Your task to perform on an android device: Open Youtube and go to "Your channel" Image 0: 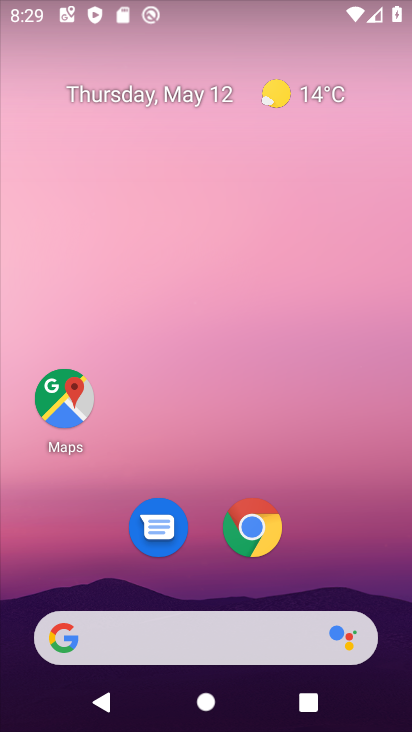
Step 0: drag from (330, 552) to (277, 29)
Your task to perform on an android device: Open Youtube and go to "Your channel" Image 1: 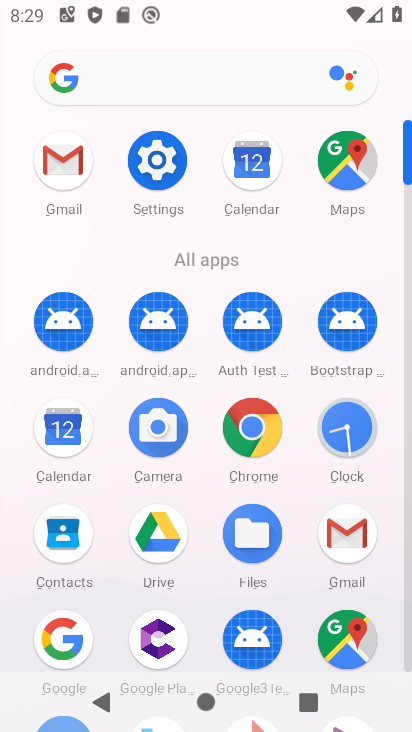
Step 1: click (402, 642)
Your task to perform on an android device: Open Youtube and go to "Your channel" Image 2: 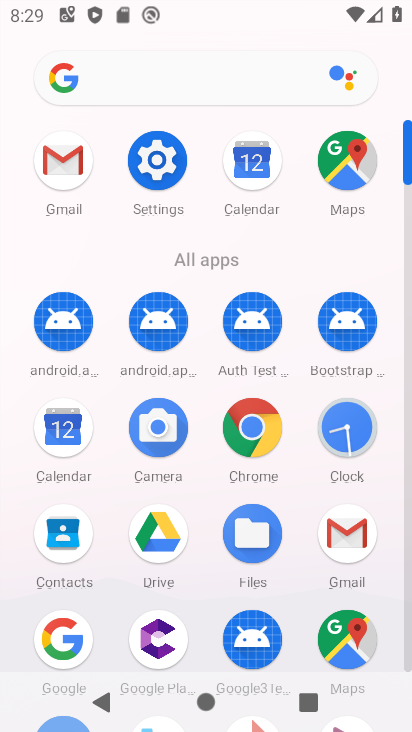
Step 2: click (410, 642)
Your task to perform on an android device: Open Youtube and go to "Your channel" Image 3: 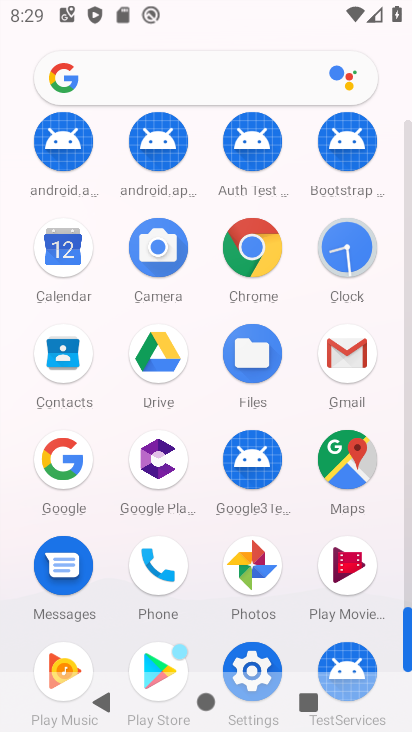
Step 3: drag from (410, 642) to (382, 707)
Your task to perform on an android device: Open Youtube and go to "Your channel" Image 4: 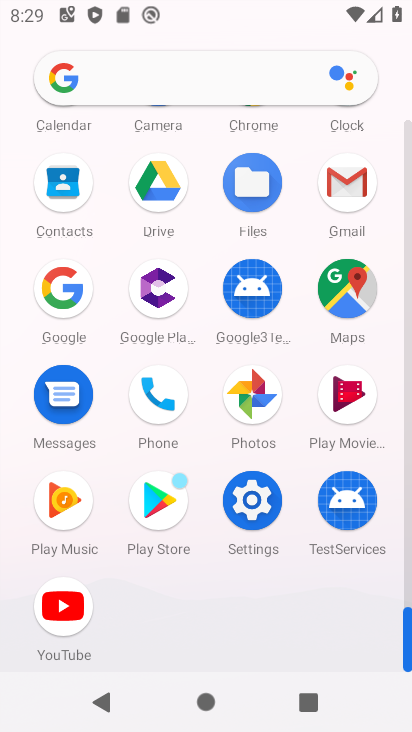
Step 4: click (69, 631)
Your task to perform on an android device: Open Youtube and go to "Your channel" Image 5: 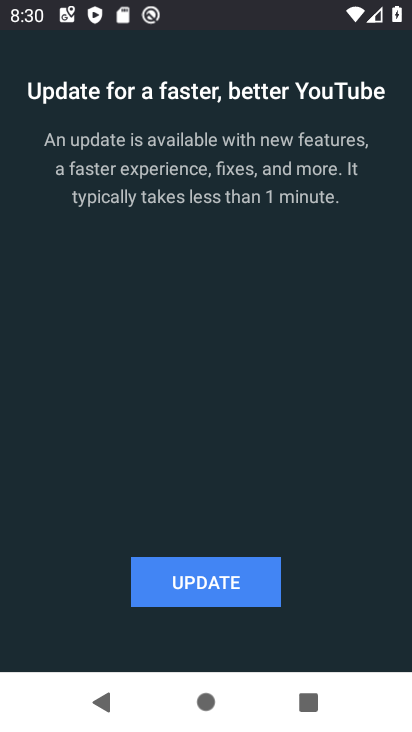
Step 5: click (193, 599)
Your task to perform on an android device: Open Youtube and go to "Your channel" Image 6: 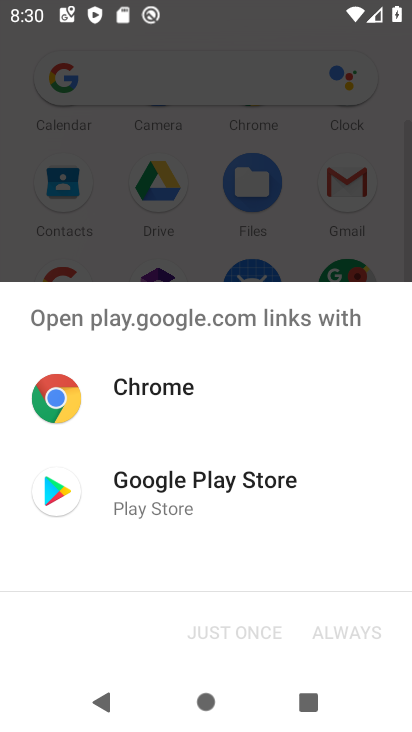
Step 6: click (227, 492)
Your task to perform on an android device: Open Youtube and go to "Your channel" Image 7: 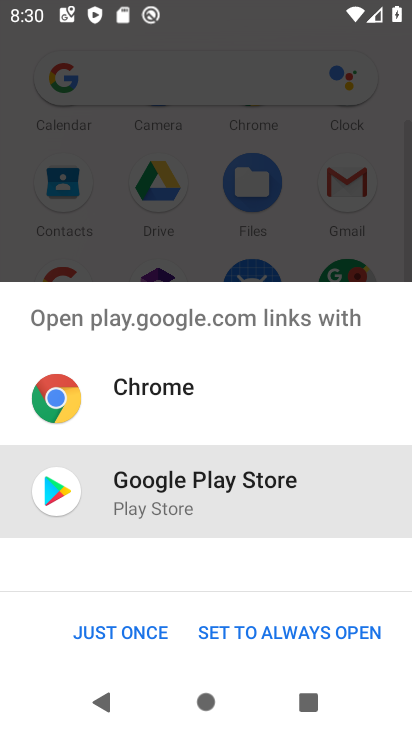
Step 7: click (139, 628)
Your task to perform on an android device: Open Youtube and go to "Your channel" Image 8: 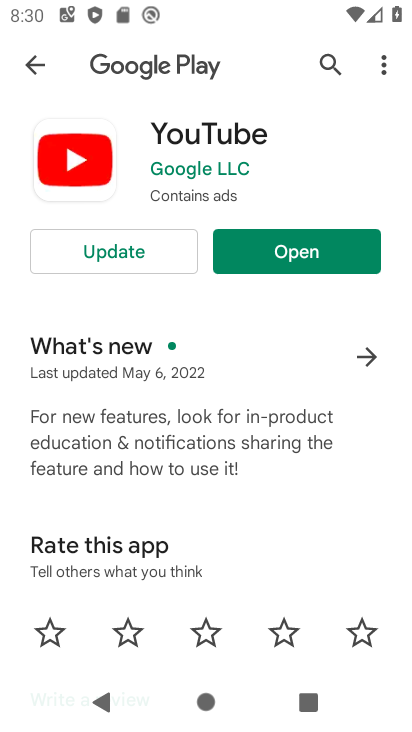
Step 8: click (142, 260)
Your task to perform on an android device: Open Youtube and go to "Your channel" Image 9: 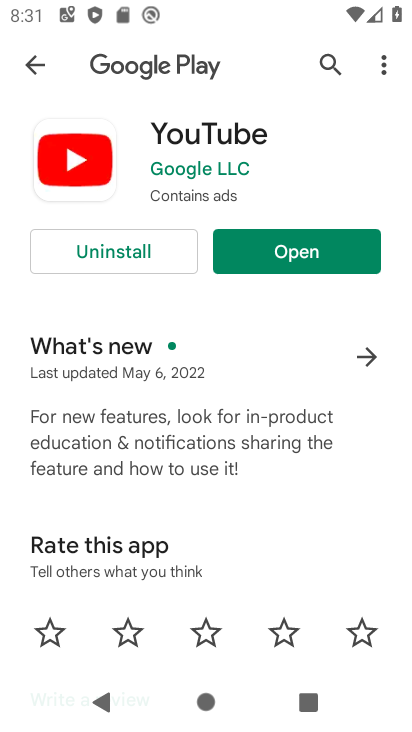
Step 9: click (344, 252)
Your task to perform on an android device: Open Youtube and go to "Your channel" Image 10: 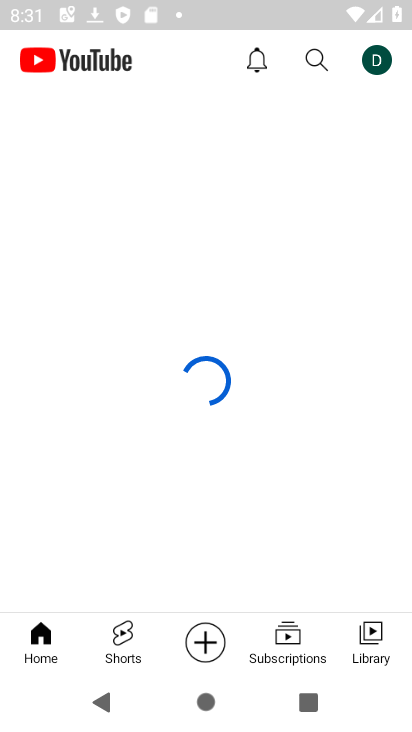
Step 10: click (367, 641)
Your task to perform on an android device: Open Youtube and go to "Your channel" Image 11: 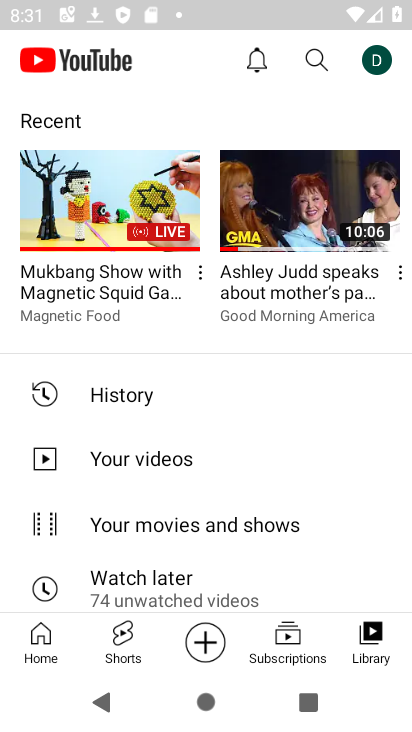
Step 11: click (384, 62)
Your task to perform on an android device: Open Youtube and go to "Your channel" Image 12: 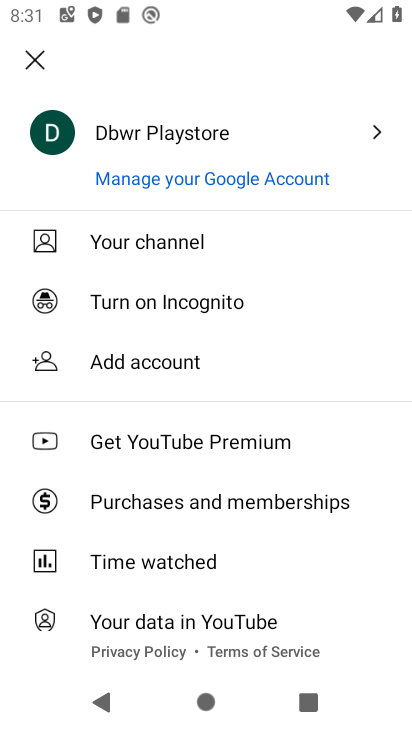
Step 12: click (258, 230)
Your task to perform on an android device: Open Youtube and go to "Your channel" Image 13: 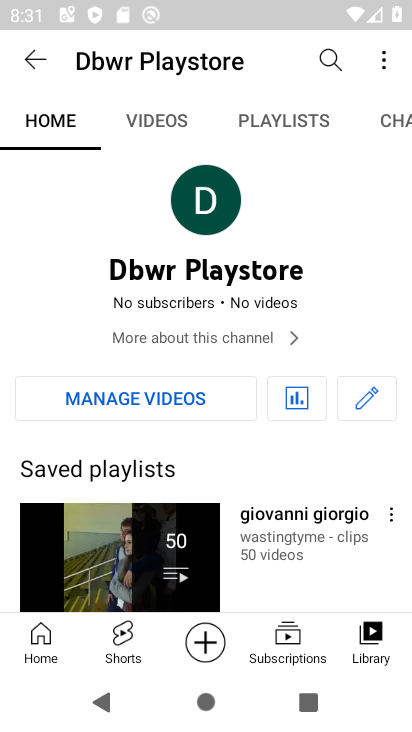
Step 13: task complete